Your task to perform on an android device: Do I have any events tomorrow? Image 0: 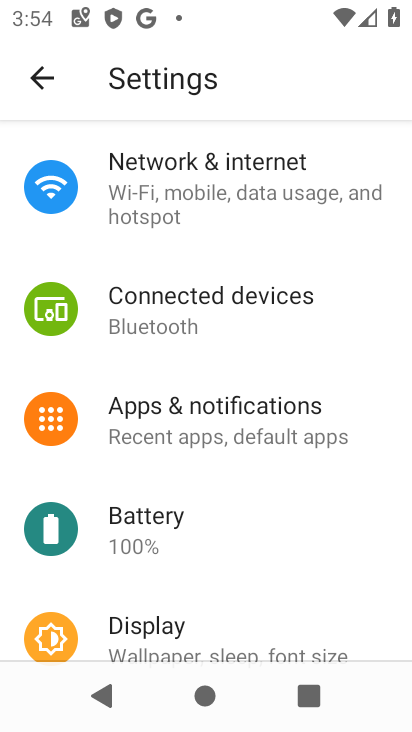
Step 0: press home button
Your task to perform on an android device: Do I have any events tomorrow? Image 1: 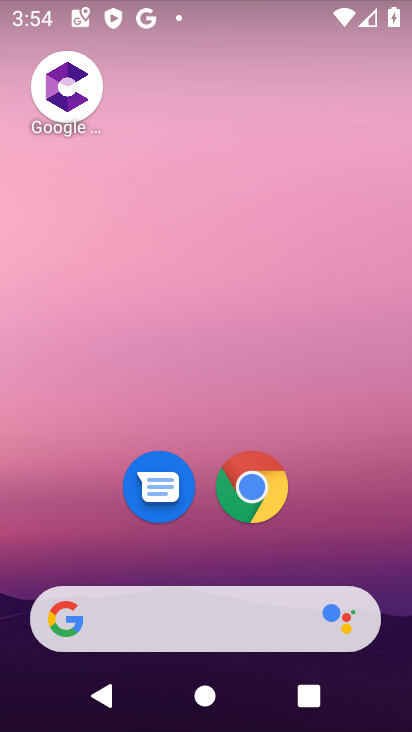
Step 1: drag from (398, 484) to (342, 48)
Your task to perform on an android device: Do I have any events tomorrow? Image 2: 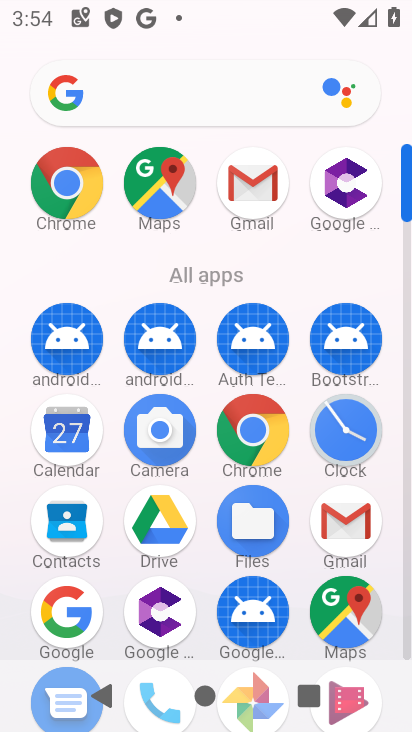
Step 2: click (65, 427)
Your task to perform on an android device: Do I have any events tomorrow? Image 3: 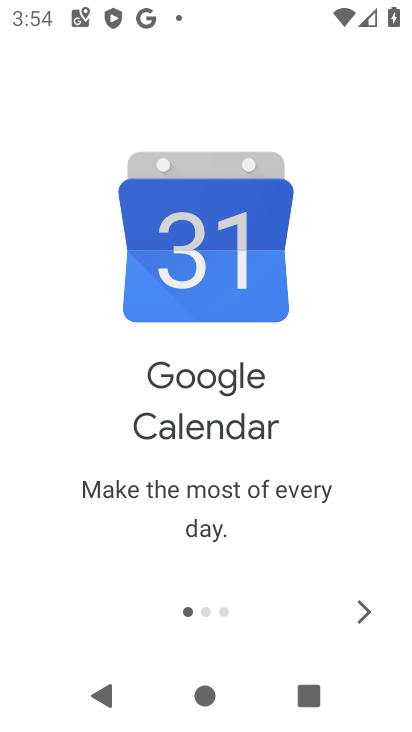
Step 3: click (359, 604)
Your task to perform on an android device: Do I have any events tomorrow? Image 4: 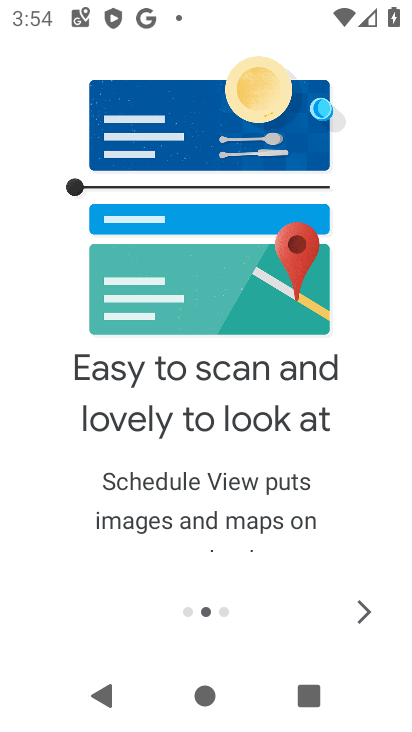
Step 4: click (371, 608)
Your task to perform on an android device: Do I have any events tomorrow? Image 5: 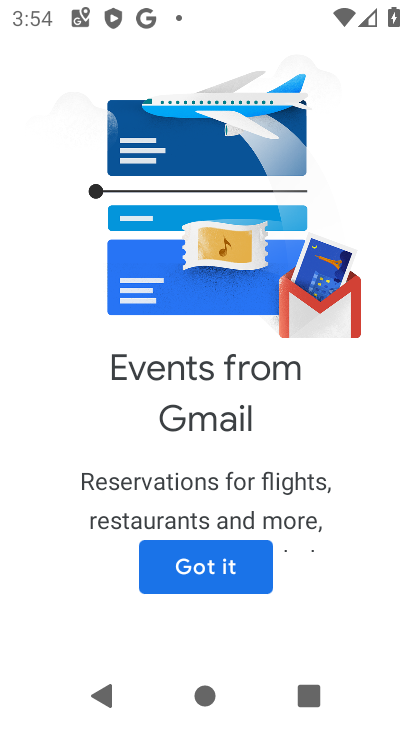
Step 5: click (247, 569)
Your task to perform on an android device: Do I have any events tomorrow? Image 6: 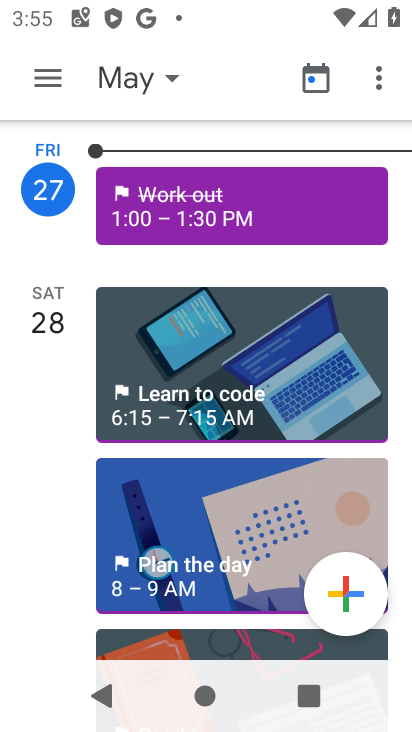
Step 6: task complete